Your task to perform on an android device: open a bookmark in the chrome app Image 0: 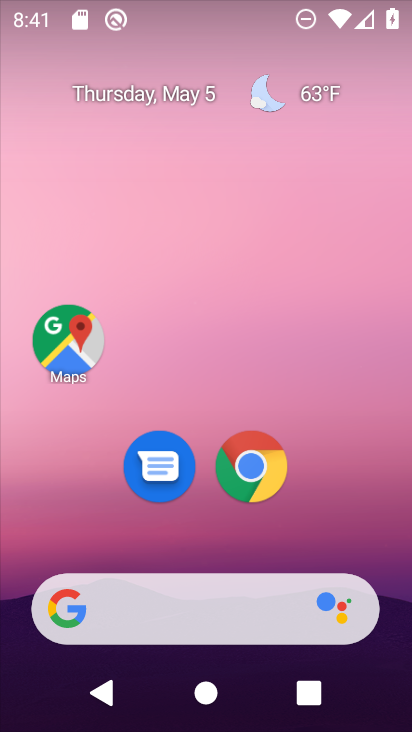
Step 0: click (284, 467)
Your task to perform on an android device: open a bookmark in the chrome app Image 1: 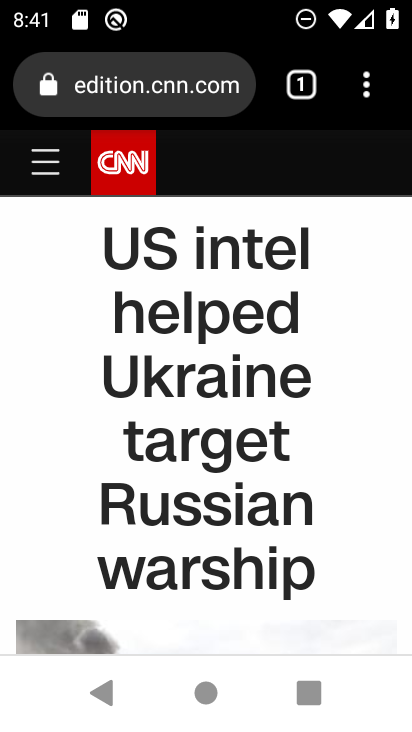
Step 1: drag from (359, 99) to (145, 324)
Your task to perform on an android device: open a bookmark in the chrome app Image 2: 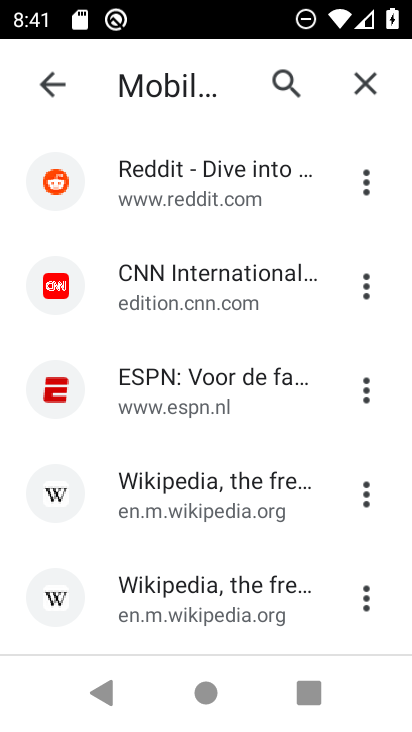
Step 2: click (184, 423)
Your task to perform on an android device: open a bookmark in the chrome app Image 3: 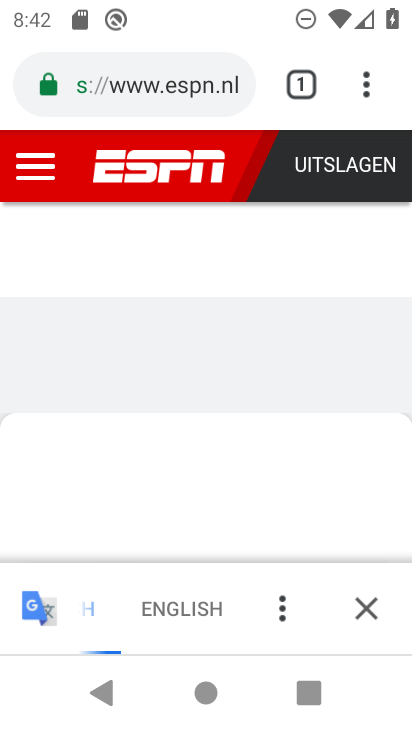
Step 3: task complete